Your task to perform on an android device: snooze an email in the gmail app Image 0: 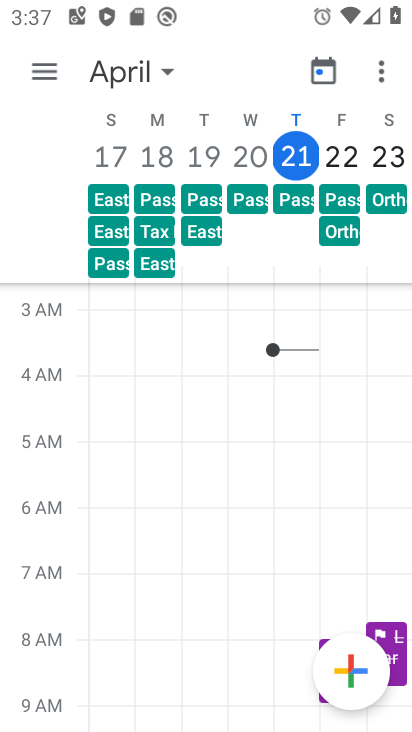
Step 0: press home button
Your task to perform on an android device: snooze an email in the gmail app Image 1: 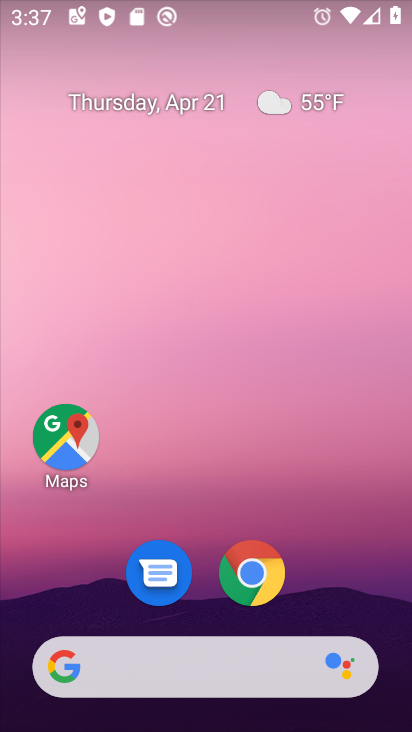
Step 1: drag from (359, 606) to (293, 119)
Your task to perform on an android device: snooze an email in the gmail app Image 2: 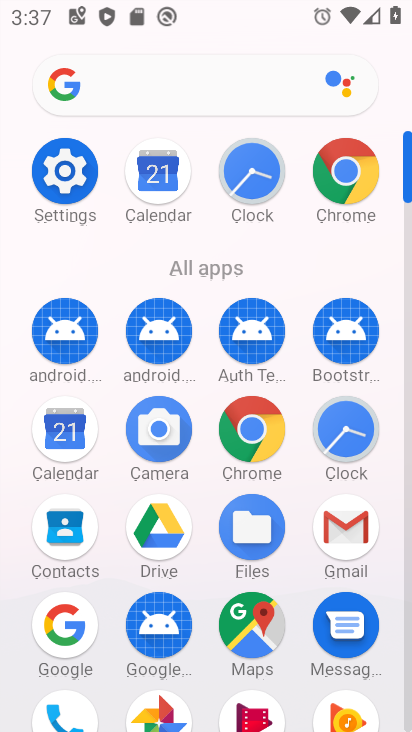
Step 2: click (406, 716)
Your task to perform on an android device: snooze an email in the gmail app Image 3: 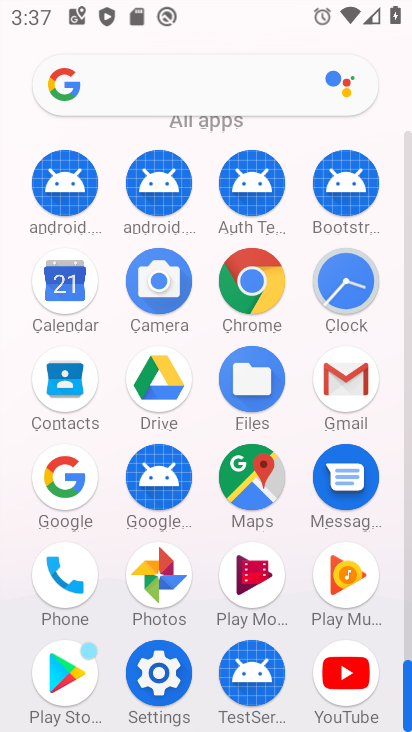
Step 3: click (348, 378)
Your task to perform on an android device: snooze an email in the gmail app Image 4: 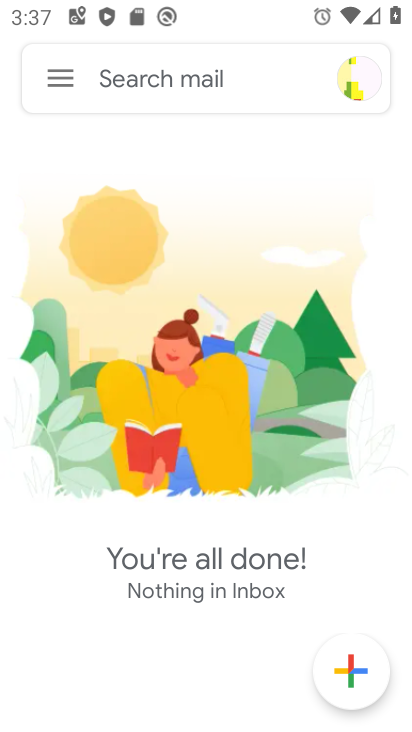
Step 4: click (56, 79)
Your task to perform on an android device: snooze an email in the gmail app Image 5: 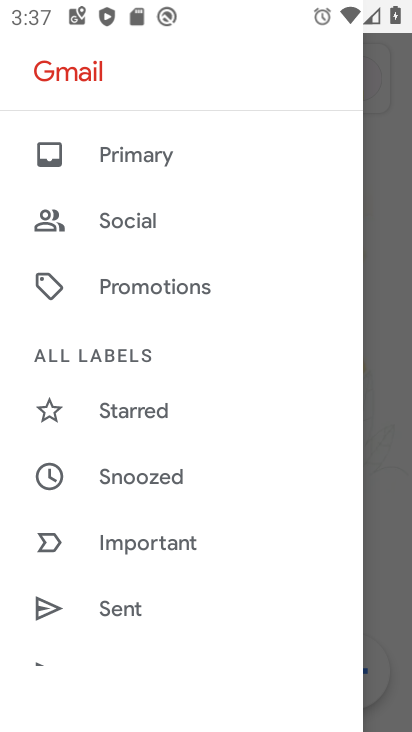
Step 5: drag from (223, 565) to (245, 167)
Your task to perform on an android device: snooze an email in the gmail app Image 6: 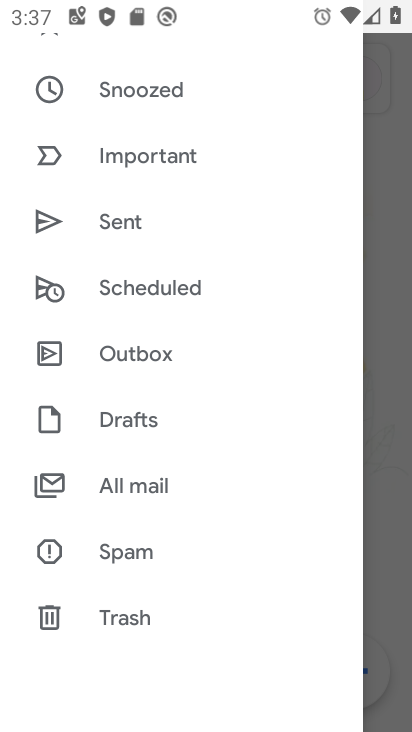
Step 6: click (124, 490)
Your task to perform on an android device: snooze an email in the gmail app Image 7: 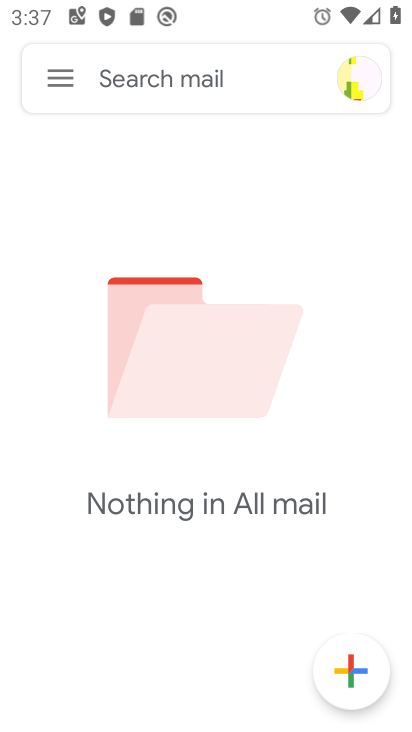
Step 7: task complete